Your task to perform on an android device: open a new tab in the chrome app Image 0: 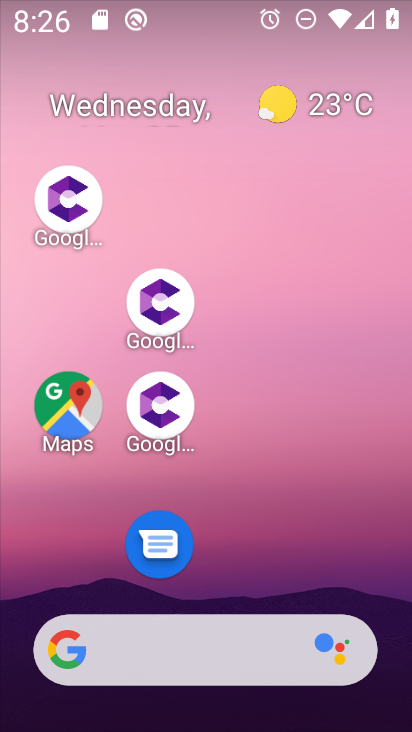
Step 0: drag from (285, 496) to (104, 80)
Your task to perform on an android device: open a new tab in the chrome app Image 1: 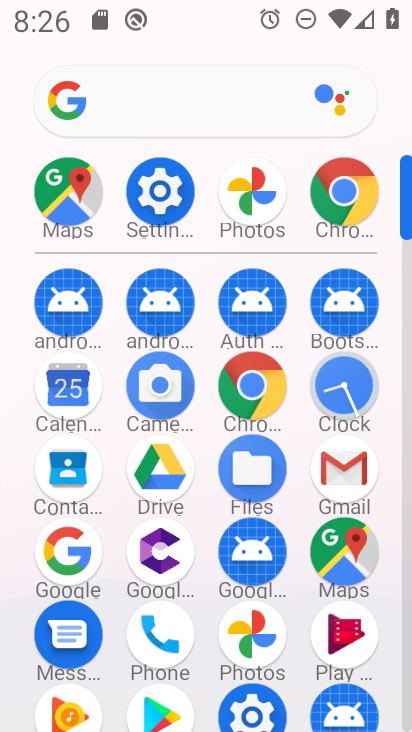
Step 1: click (346, 187)
Your task to perform on an android device: open a new tab in the chrome app Image 2: 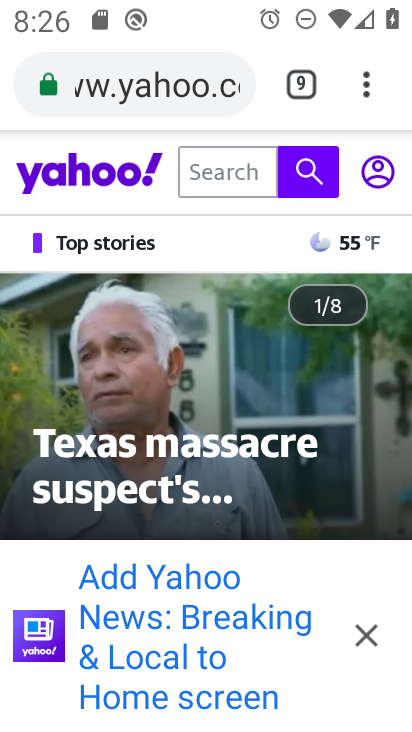
Step 2: click (361, 82)
Your task to perform on an android device: open a new tab in the chrome app Image 3: 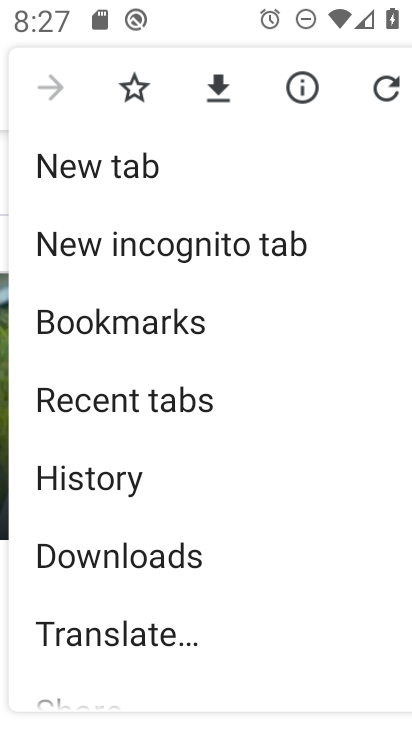
Step 3: click (126, 164)
Your task to perform on an android device: open a new tab in the chrome app Image 4: 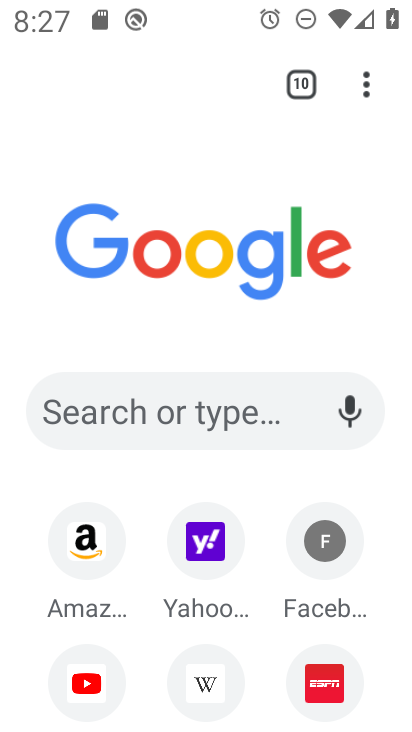
Step 4: task complete